Your task to perform on an android device: Go to calendar. Show me events next week Image 0: 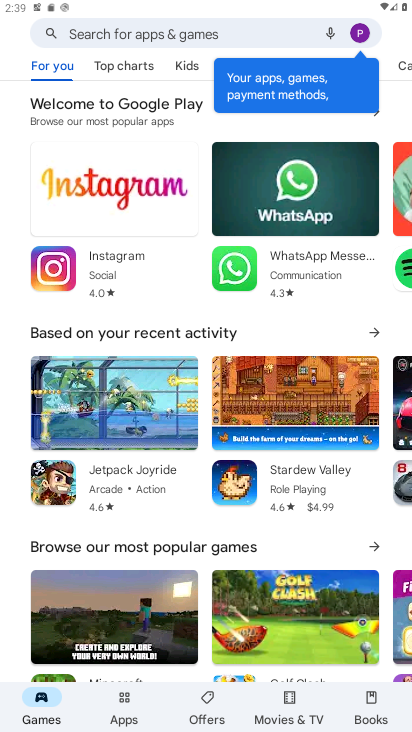
Step 0: press home button
Your task to perform on an android device: Go to calendar. Show me events next week Image 1: 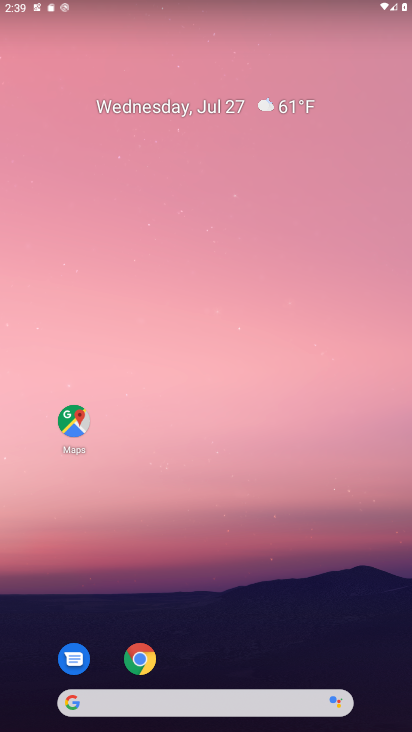
Step 1: drag from (199, 715) to (155, 108)
Your task to perform on an android device: Go to calendar. Show me events next week Image 2: 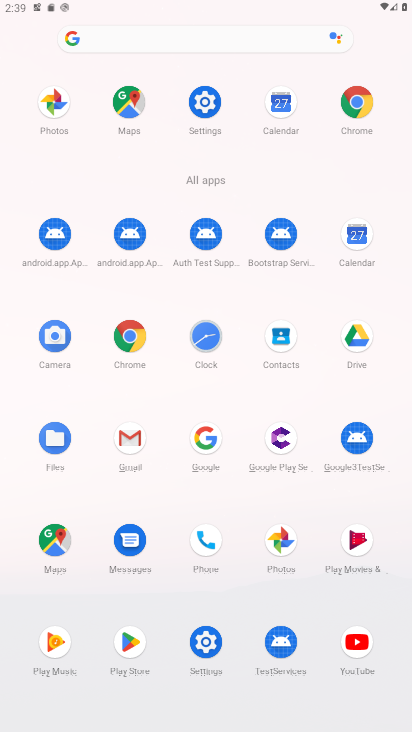
Step 2: click (358, 235)
Your task to perform on an android device: Go to calendar. Show me events next week Image 3: 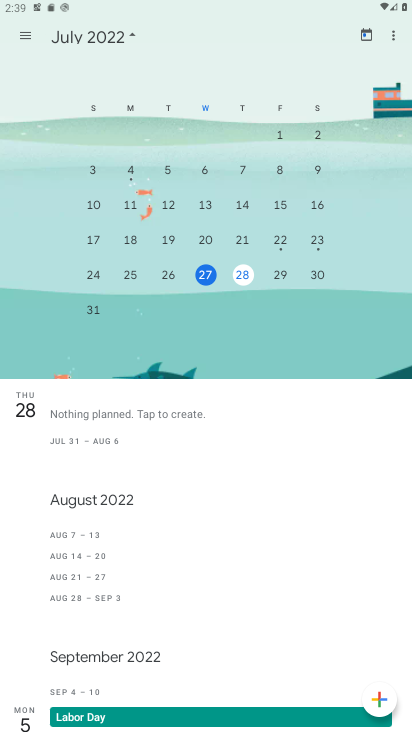
Step 3: click (31, 31)
Your task to perform on an android device: Go to calendar. Show me events next week Image 4: 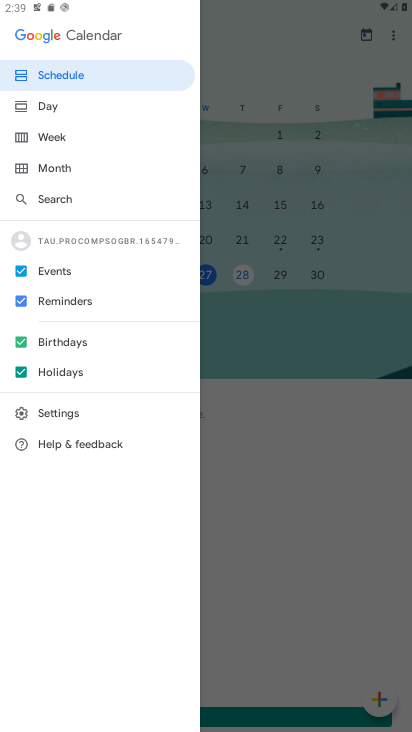
Step 4: click (52, 143)
Your task to perform on an android device: Go to calendar. Show me events next week Image 5: 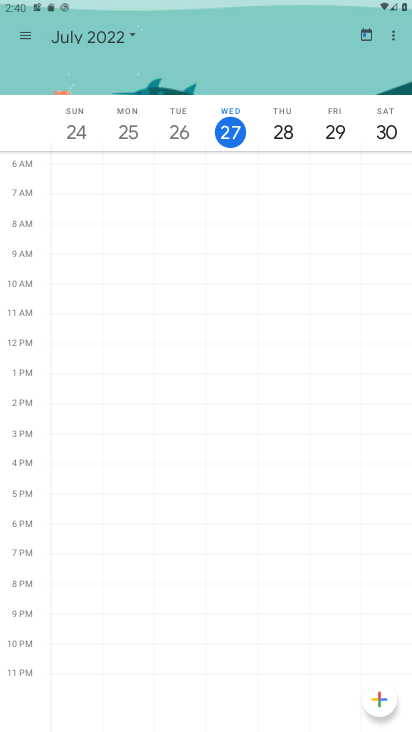
Step 5: task complete